Your task to perform on an android device: Open Google Image 0: 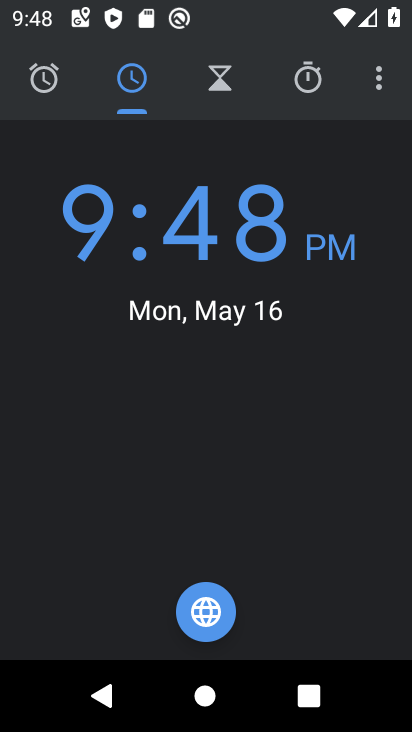
Step 0: press home button
Your task to perform on an android device: Open Google Image 1: 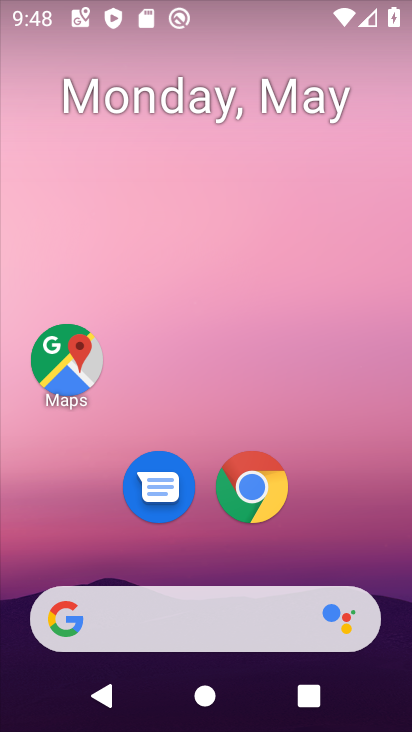
Step 1: drag from (293, 553) to (282, 1)
Your task to perform on an android device: Open Google Image 2: 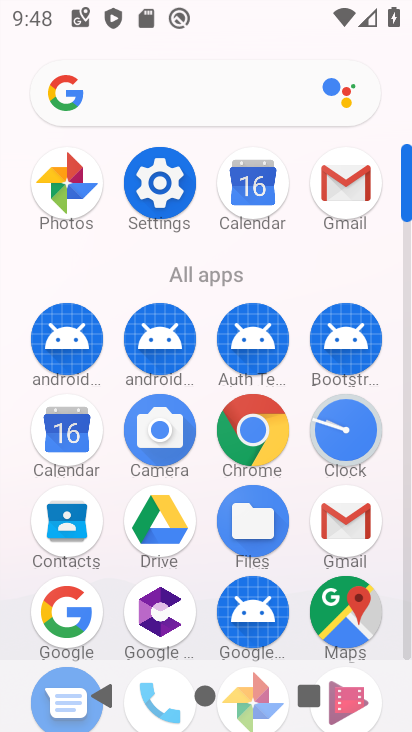
Step 2: click (61, 608)
Your task to perform on an android device: Open Google Image 3: 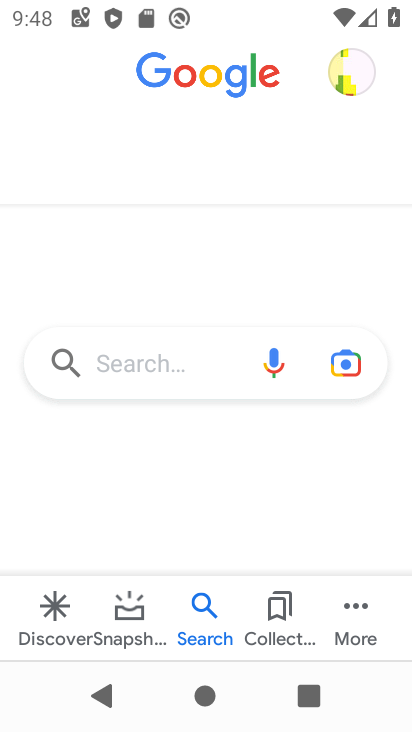
Step 3: task complete